Your task to perform on an android device: turn pop-ups off in chrome Image 0: 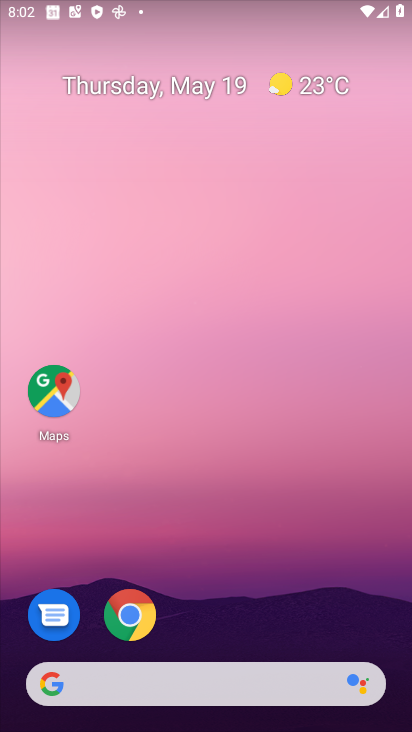
Step 0: drag from (313, 626) to (241, 74)
Your task to perform on an android device: turn pop-ups off in chrome Image 1: 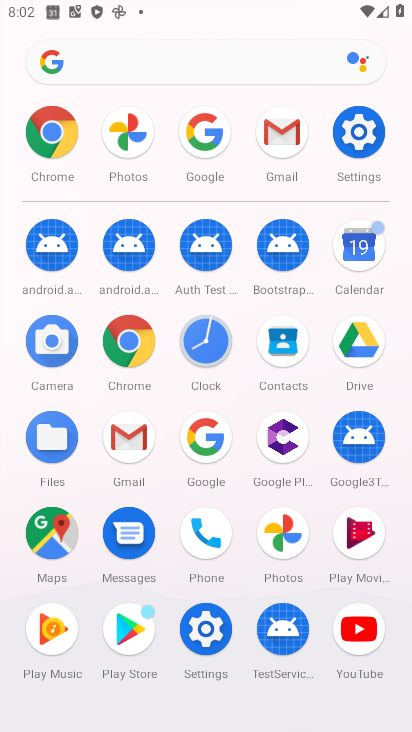
Step 1: click (46, 145)
Your task to perform on an android device: turn pop-ups off in chrome Image 2: 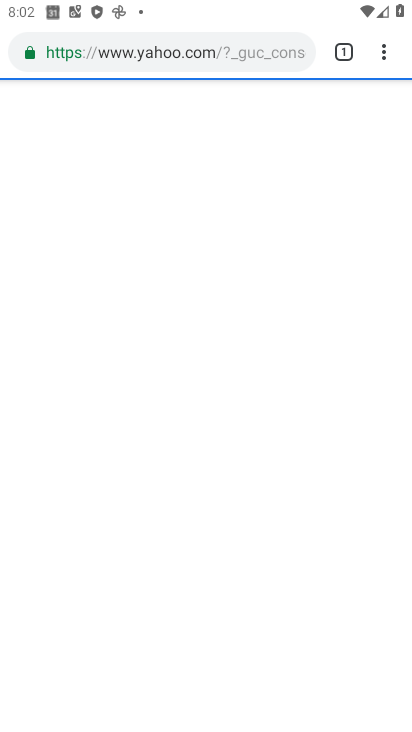
Step 2: press back button
Your task to perform on an android device: turn pop-ups off in chrome Image 3: 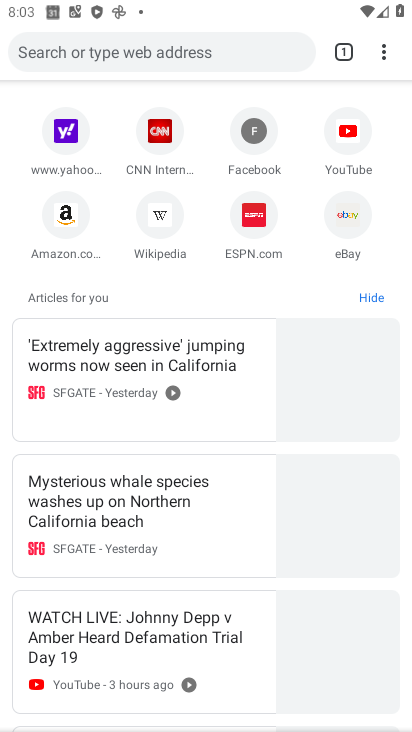
Step 3: press back button
Your task to perform on an android device: turn pop-ups off in chrome Image 4: 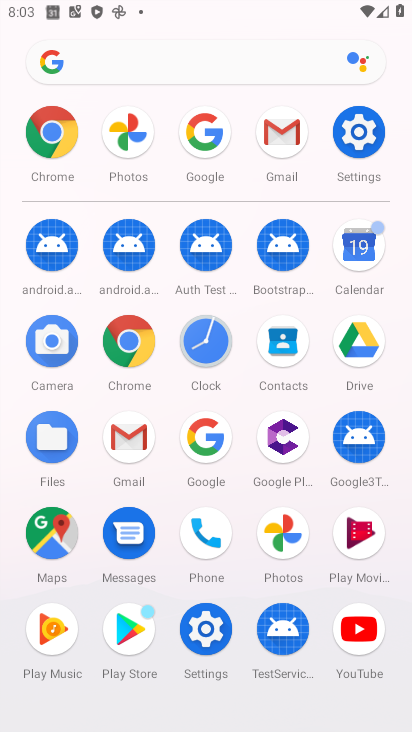
Step 4: click (62, 128)
Your task to perform on an android device: turn pop-ups off in chrome Image 5: 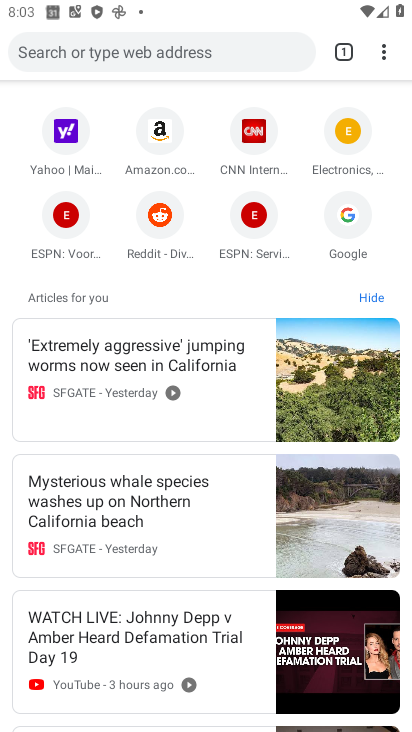
Step 5: click (385, 47)
Your task to perform on an android device: turn pop-ups off in chrome Image 6: 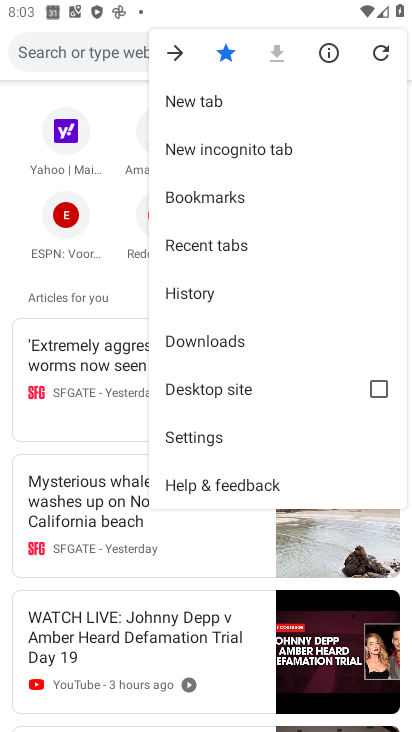
Step 6: click (221, 432)
Your task to perform on an android device: turn pop-ups off in chrome Image 7: 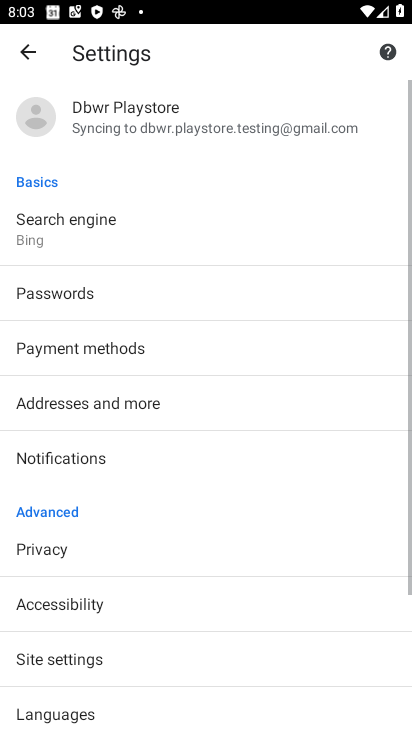
Step 7: click (84, 667)
Your task to perform on an android device: turn pop-ups off in chrome Image 8: 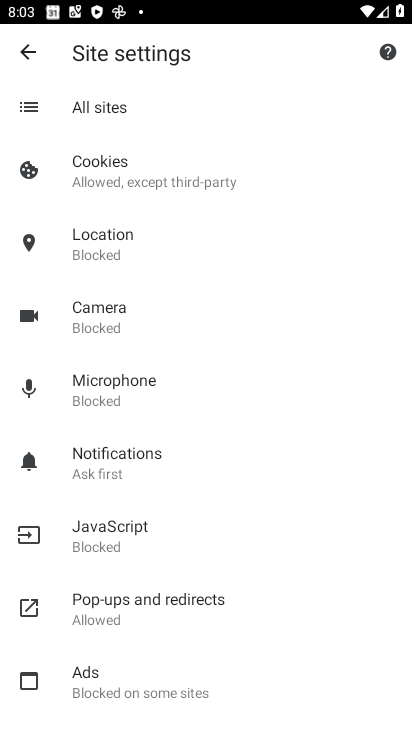
Step 8: click (202, 612)
Your task to perform on an android device: turn pop-ups off in chrome Image 9: 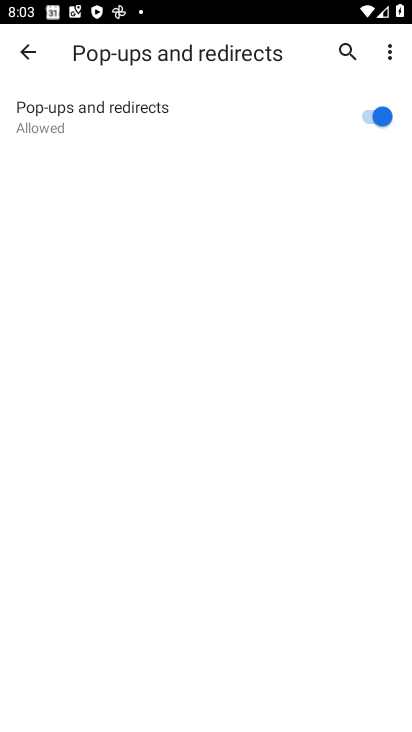
Step 9: click (343, 133)
Your task to perform on an android device: turn pop-ups off in chrome Image 10: 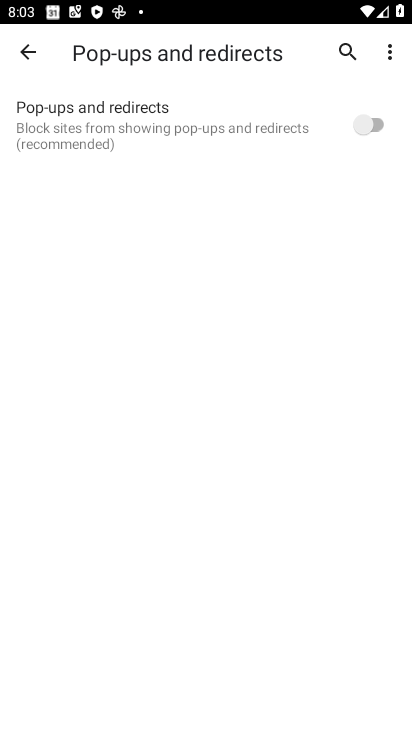
Step 10: task complete